Your task to perform on an android device: Open Google Chrome and open the bookmarks view Image 0: 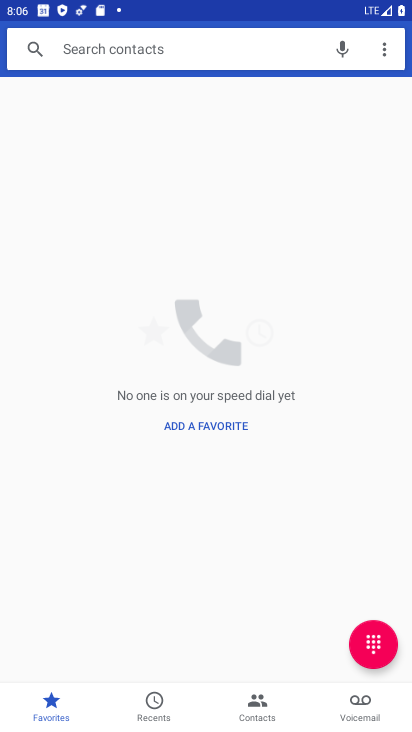
Step 0: press home button
Your task to perform on an android device: Open Google Chrome and open the bookmarks view Image 1: 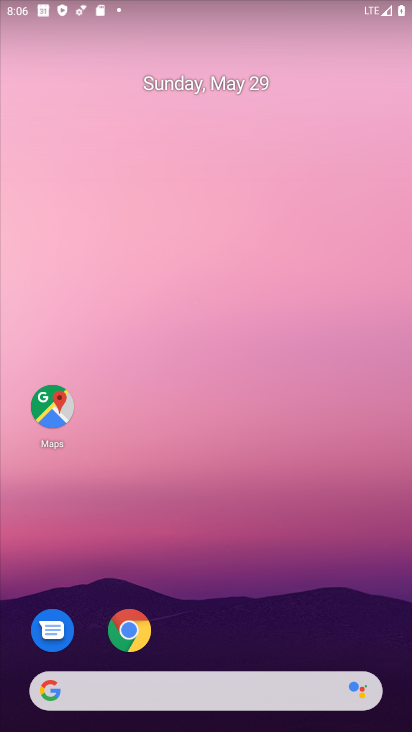
Step 1: click (133, 628)
Your task to perform on an android device: Open Google Chrome and open the bookmarks view Image 2: 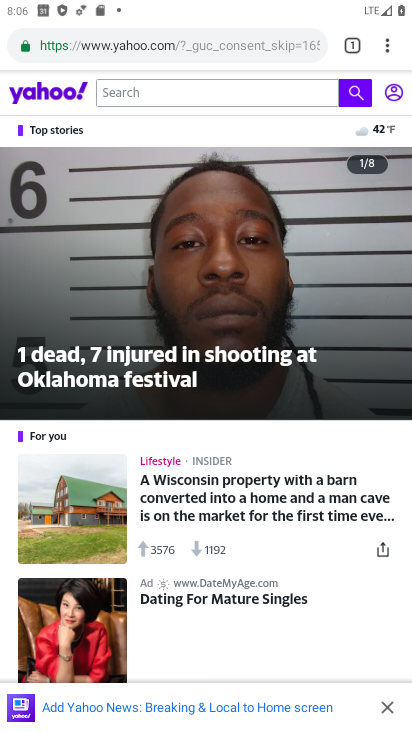
Step 2: click (389, 48)
Your task to perform on an android device: Open Google Chrome and open the bookmarks view Image 3: 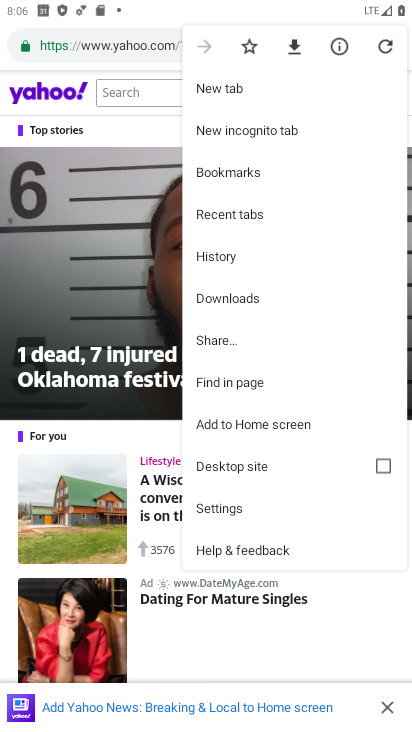
Step 3: click (201, 166)
Your task to perform on an android device: Open Google Chrome and open the bookmarks view Image 4: 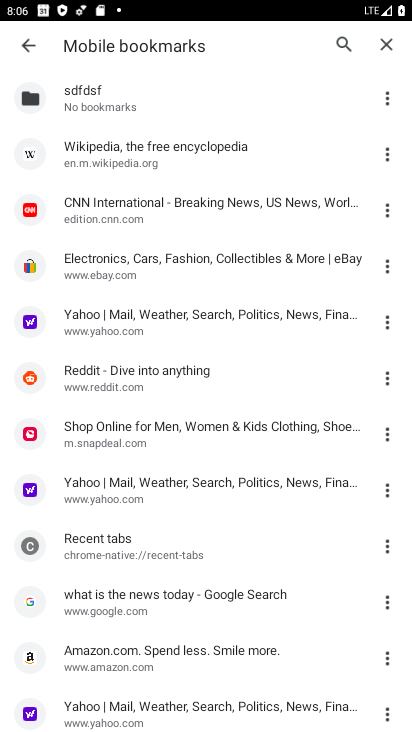
Step 4: task complete